Your task to perform on an android device: Open calendar and show me the first week of next month Image 0: 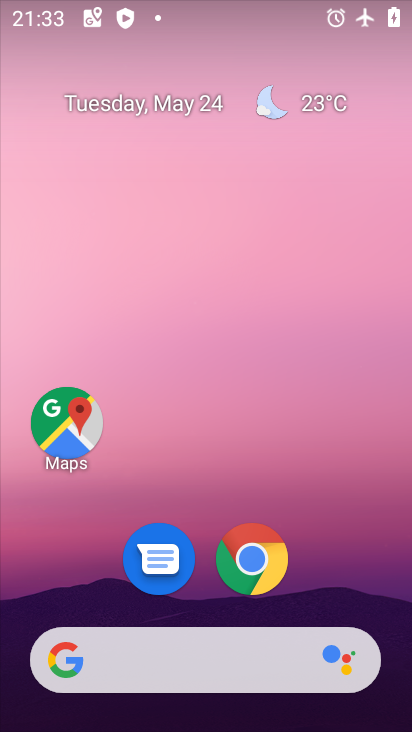
Step 0: drag from (323, 568) to (279, 169)
Your task to perform on an android device: Open calendar and show me the first week of next month Image 1: 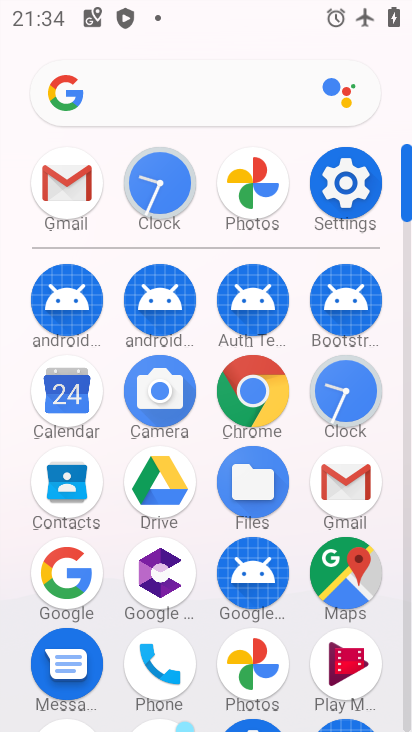
Step 1: click (59, 401)
Your task to perform on an android device: Open calendar and show me the first week of next month Image 2: 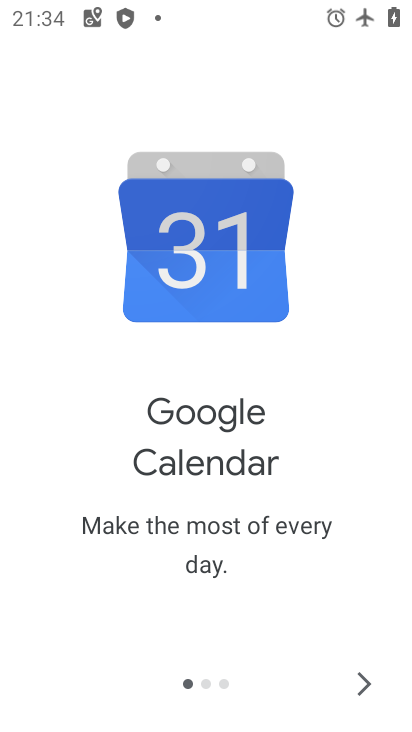
Step 2: click (357, 678)
Your task to perform on an android device: Open calendar and show me the first week of next month Image 3: 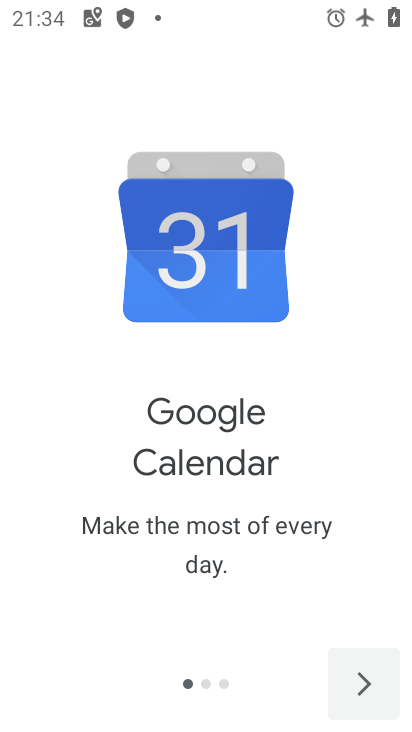
Step 3: click (357, 678)
Your task to perform on an android device: Open calendar and show me the first week of next month Image 4: 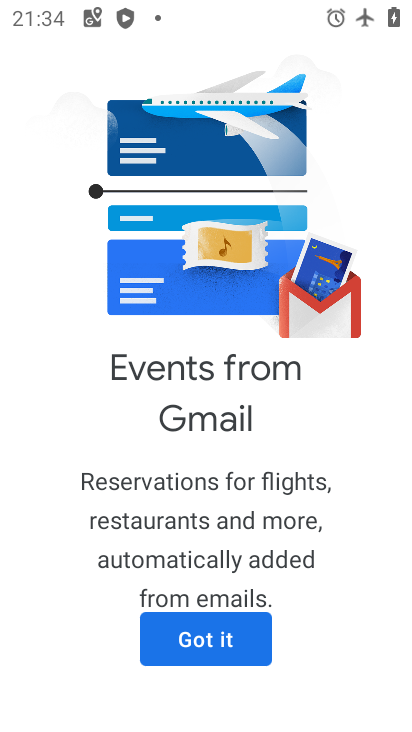
Step 4: click (249, 648)
Your task to perform on an android device: Open calendar and show me the first week of next month Image 5: 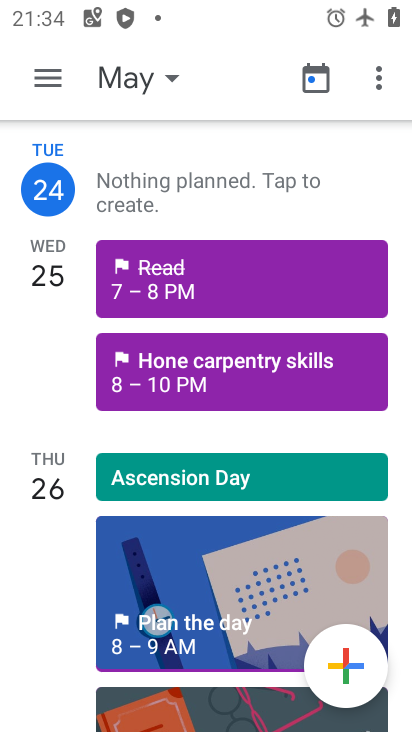
Step 5: click (118, 70)
Your task to perform on an android device: Open calendar and show me the first week of next month Image 6: 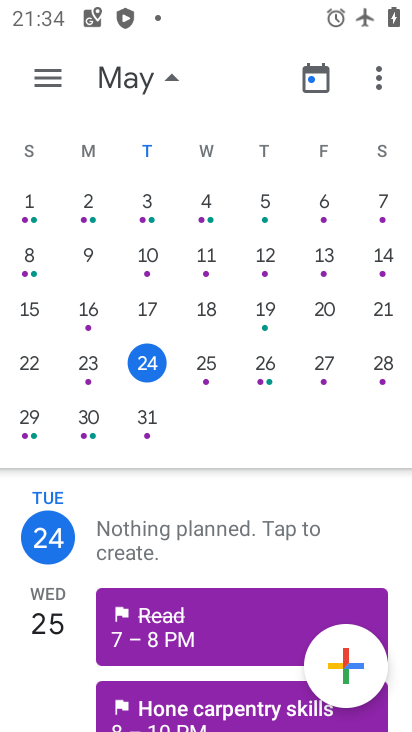
Step 6: drag from (366, 281) to (7, 224)
Your task to perform on an android device: Open calendar and show me the first week of next month Image 7: 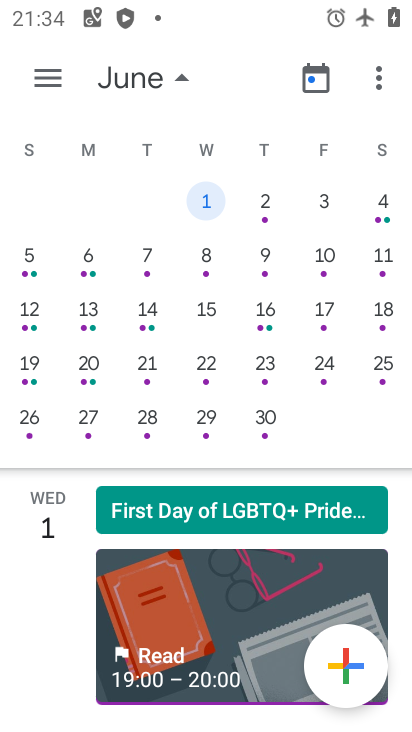
Step 7: click (31, 263)
Your task to perform on an android device: Open calendar and show me the first week of next month Image 8: 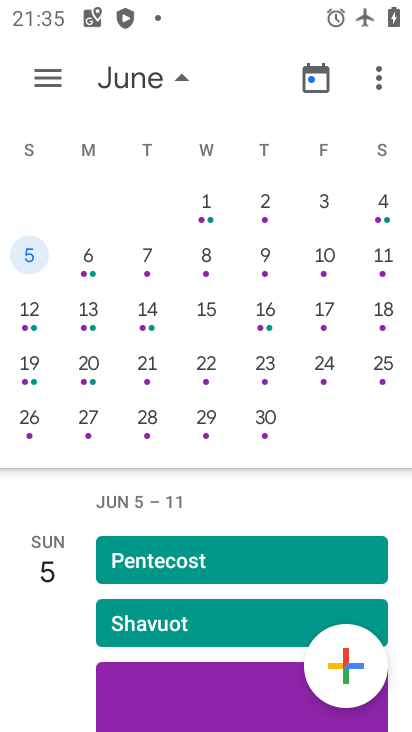
Step 8: click (48, 71)
Your task to perform on an android device: Open calendar and show me the first week of next month Image 9: 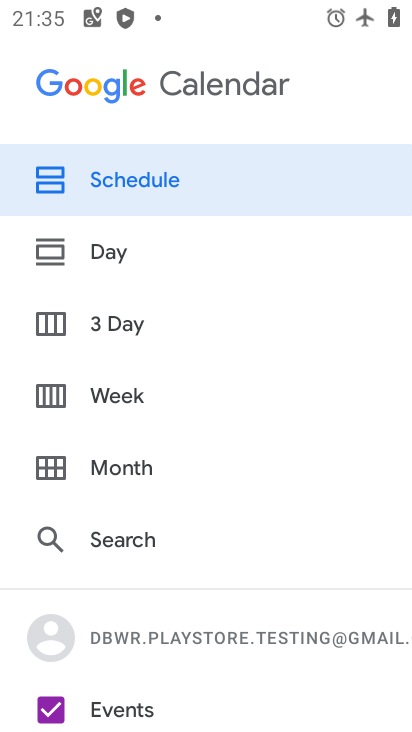
Step 9: click (114, 392)
Your task to perform on an android device: Open calendar and show me the first week of next month Image 10: 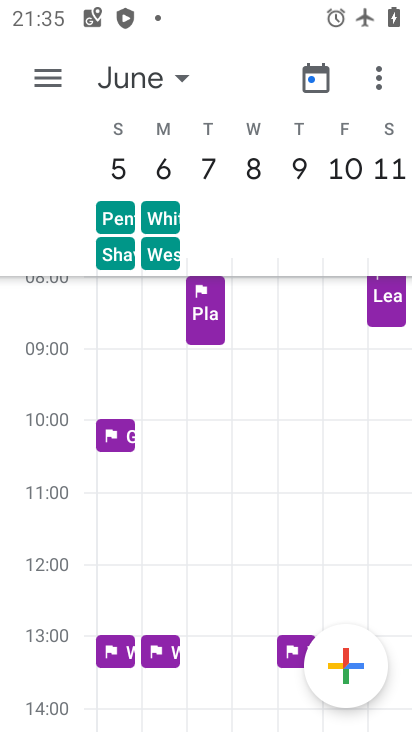
Step 10: task complete